Your task to perform on an android device: Do I have any events today? Image 0: 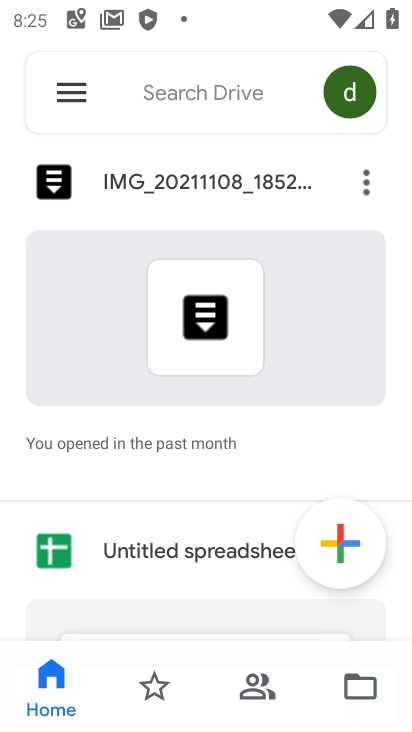
Step 0: press home button
Your task to perform on an android device: Do I have any events today? Image 1: 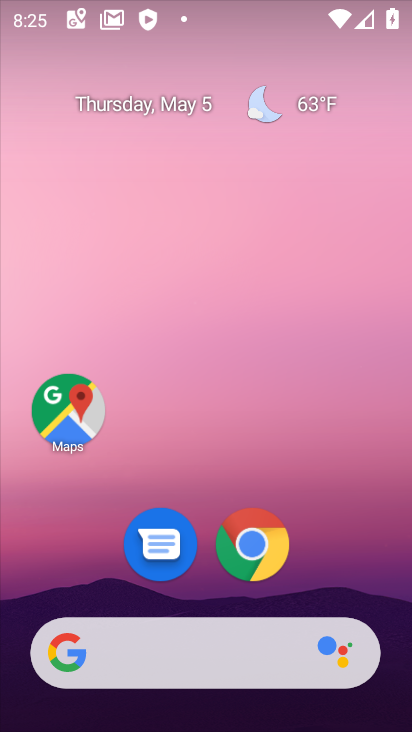
Step 1: drag from (395, 628) to (259, 128)
Your task to perform on an android device: Do I have any events today? Image 2: 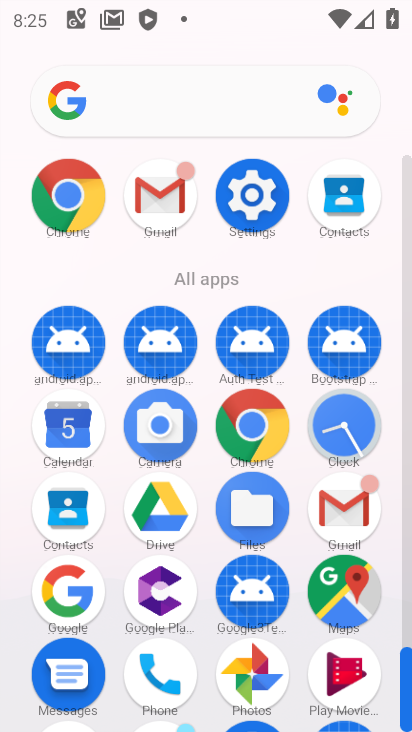
Step 2: click (62, 421)
Your task to perform on an android device: Do I have any events today? Image 3: 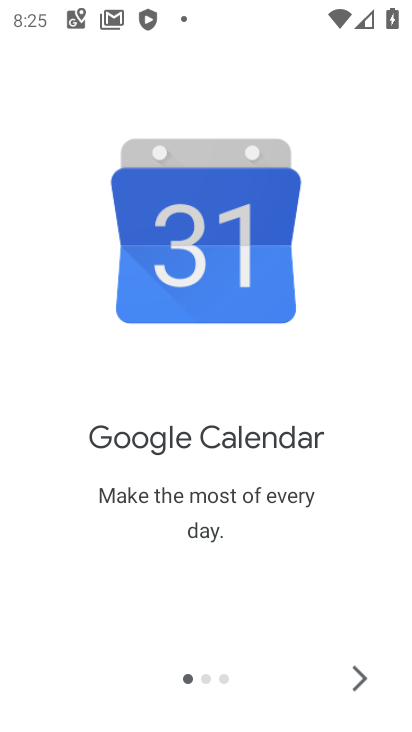
Step 3: click (354, 680)
Your task to perform on an android device: Do I have any events today? Image 4: 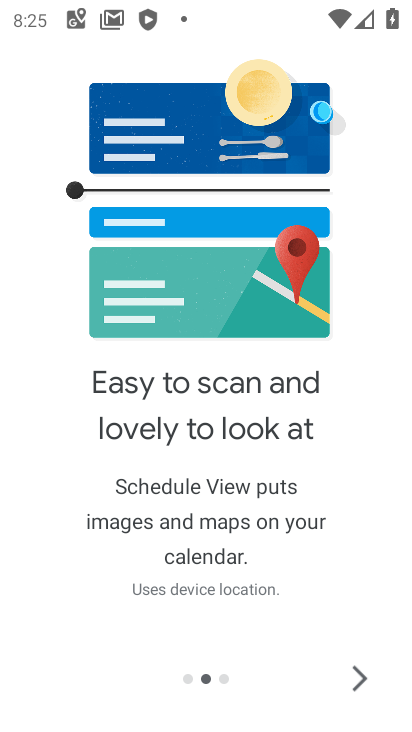
Step 4: click (354, 680)
Your task to perform on an android device: Do I have any events today? Image 5: 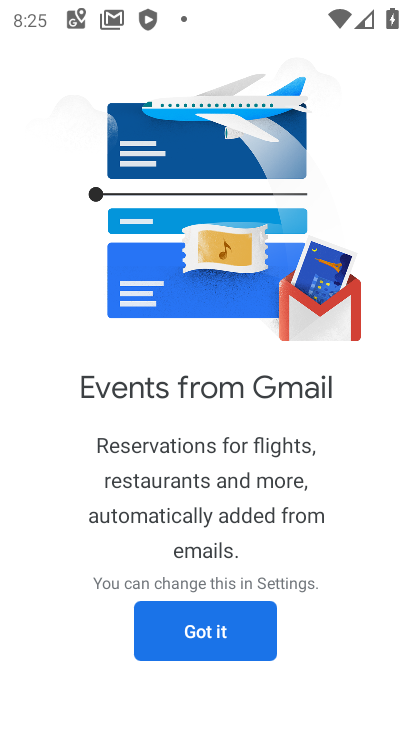
Step 5: click (188, 616)
Your task to perform on an android device: Do I have any events today? Image 6: 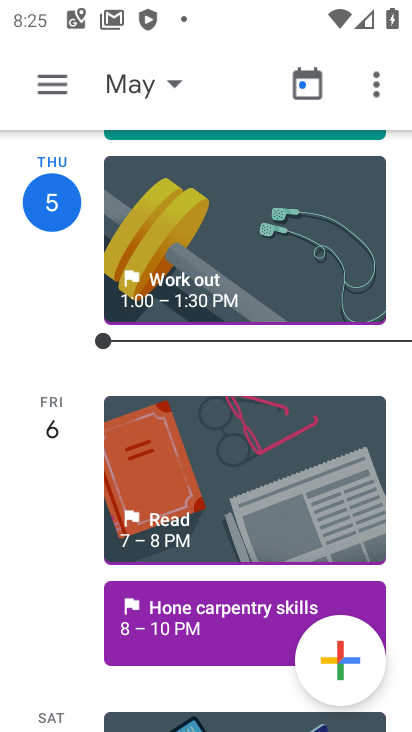
Step 6: click (40, 76)
Your task to perform on an android device: Do I have any events today? Image 7: 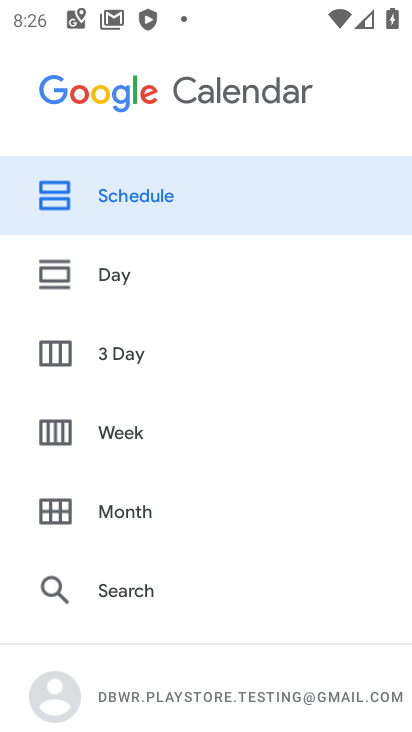
Step 7: click (173, 210)
Your task to perform on an android device: Do I have any events today? Image 8: 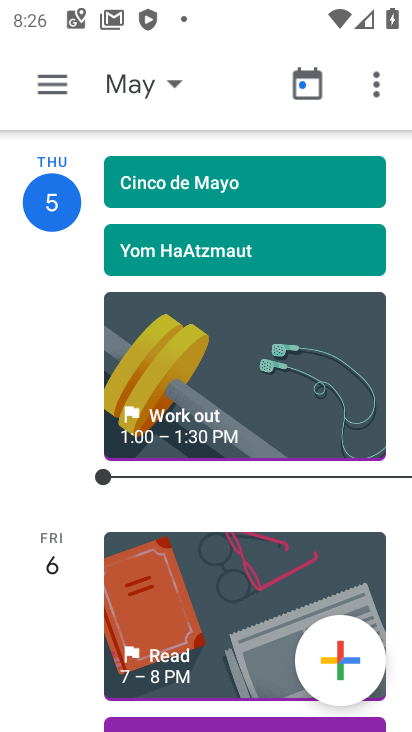
Step 8: click (213, 612)
Your task to perform on an android device: Do I have any events today? Image 9: 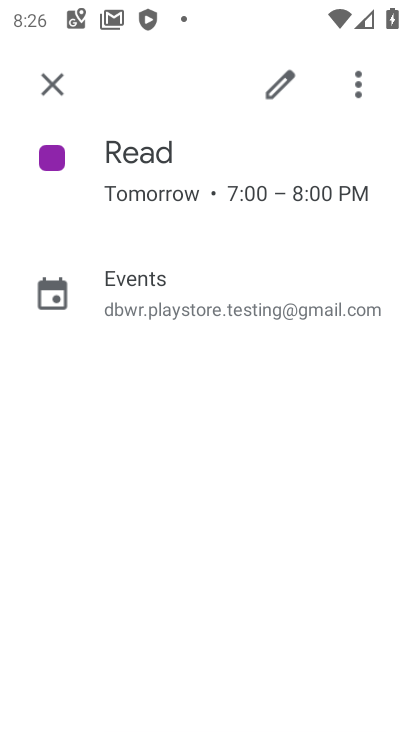
Step 9: task complete